Your task to perform on an android device: turn off priority inbox in the gmail app Image 0: 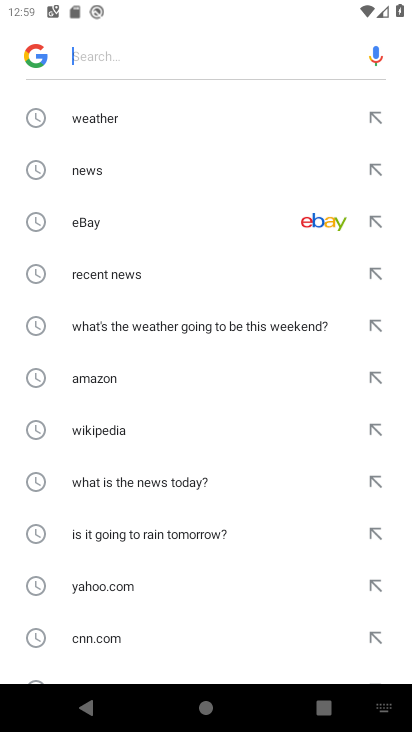
Step 0: press home button
Your task to perform on an android device: turn off priority inbox in the gmail app Image 1: 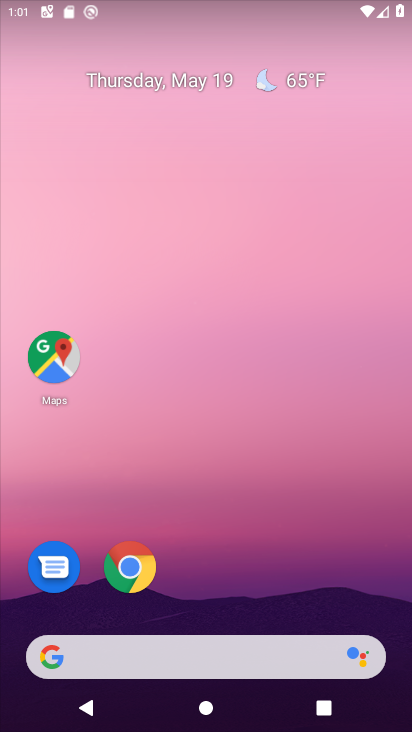
Step 1: drag from (223, 580) to (234, 189)
Your task to perform on an android device: turn off priority inbox in the gmail app Image 2: 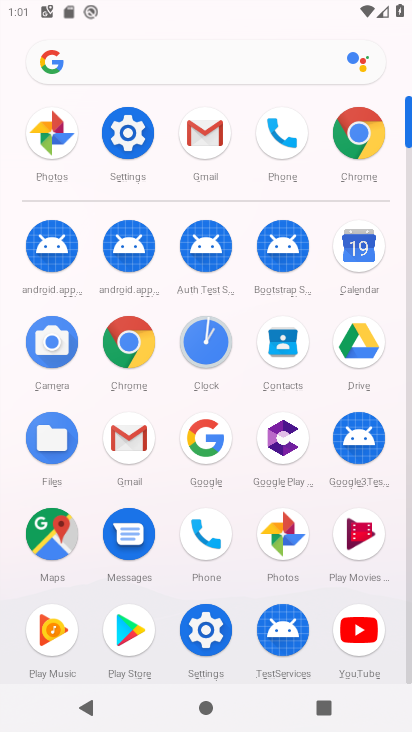
Step 2: click (209, 161)
Your task to perform on an android device: turn off priority inbox in the gmail app Image 3: 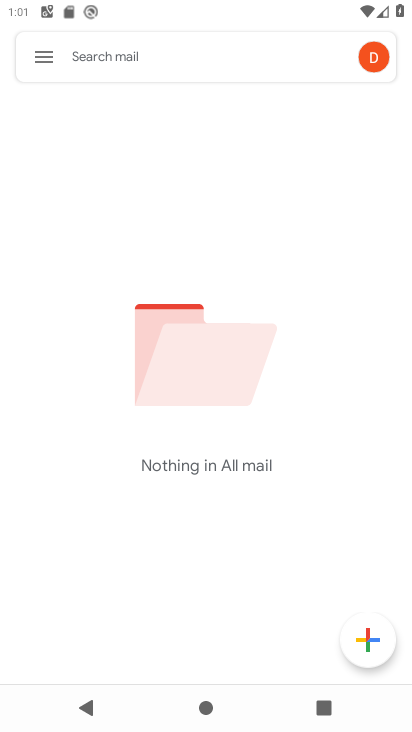
Step 3: click (52, 63)
Your task to perform on an android device: turn off priority inbox in the gmail app Image 4: 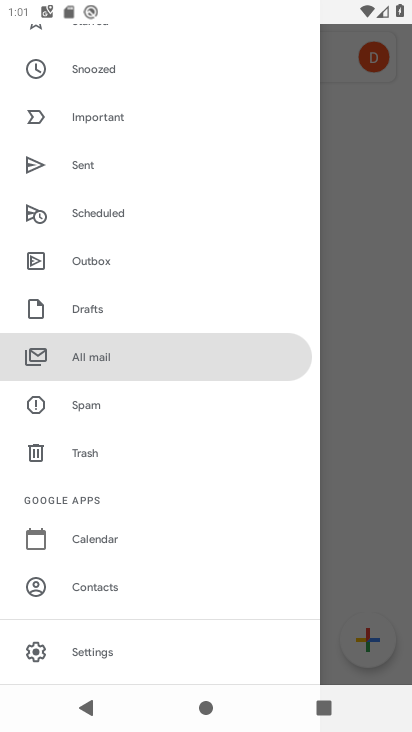
Step 4: click (71, 645)
Your task to perform on an android device: turn off priority inbox in the gmail app Image 5: 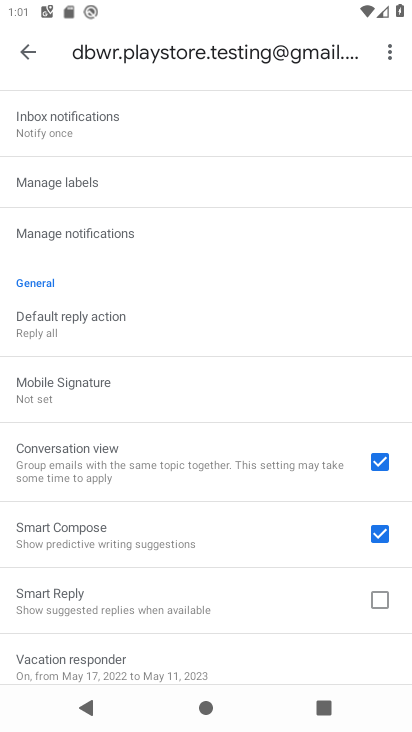
Step 5: drag from (145, 640) to (122, 221)
Your task to perform on an android device: turn off priority inbox in the gmail app Image 6: 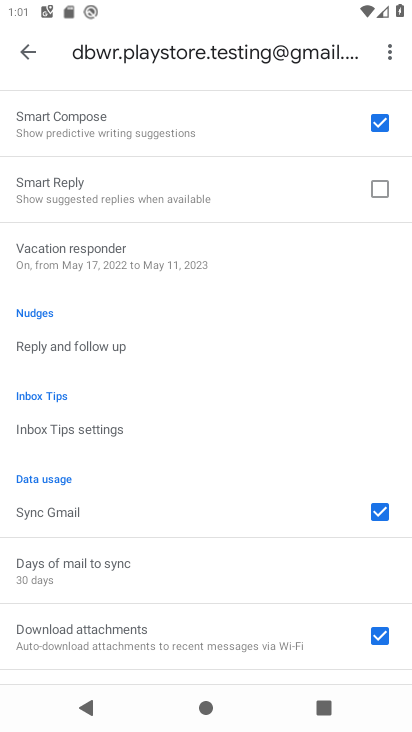
Step 6: drag from (136, 567) to (95, 174)
Your task to perform on an android device: turn off priority inbox in the gmail app Image 7: 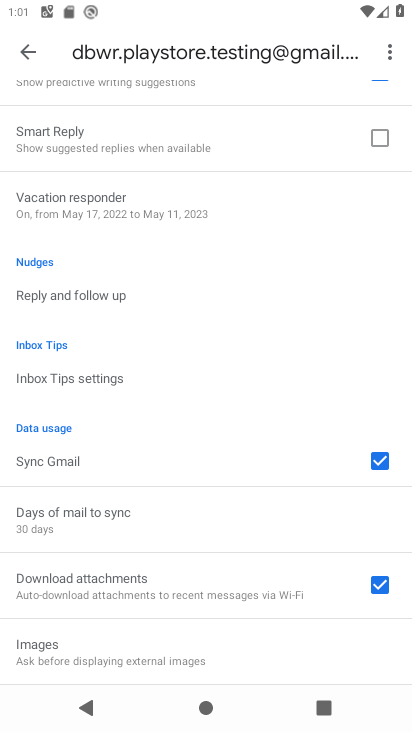
Step 7: click (63, 377)
Your task to perform on an android device: turn off priority inbox in the gmail app Image 8: 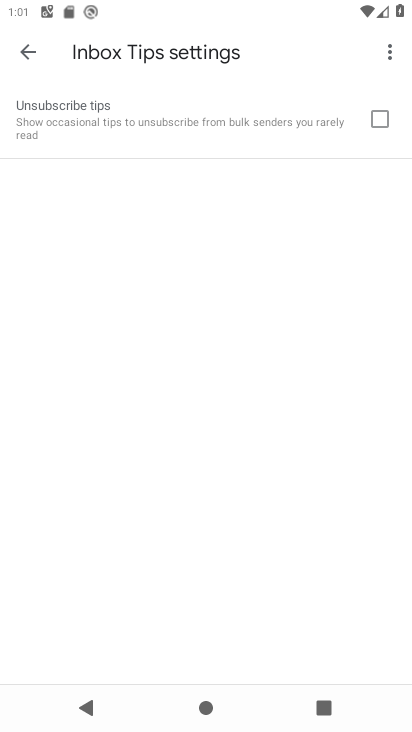
Step 8: press back button
Your task to perform on an android device: turn off priority inbox in the gmail app Image 9: 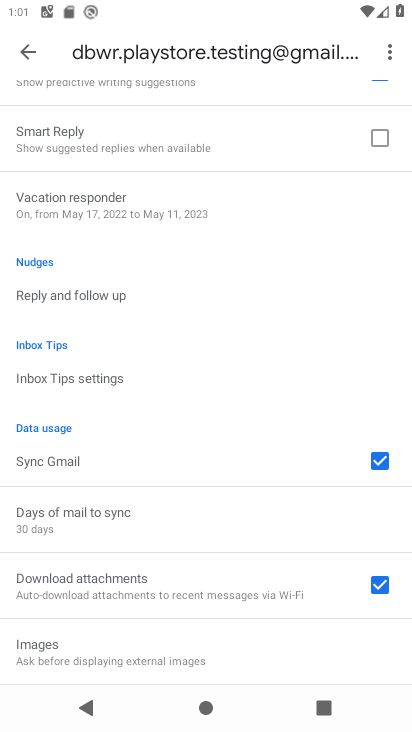
Step 9: drag from (178, 240) to (179, 448)
Your task to perform on an android device: turn off priority inbox in the gmail app Image 10: 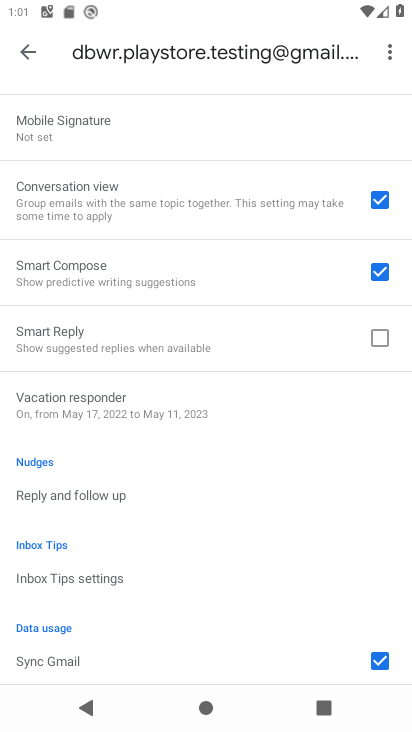
Step 10: drag from (116, 167) to (130, 563)
Your task to perform on an android device: turn off priority inbox in the gmail app Image 11: 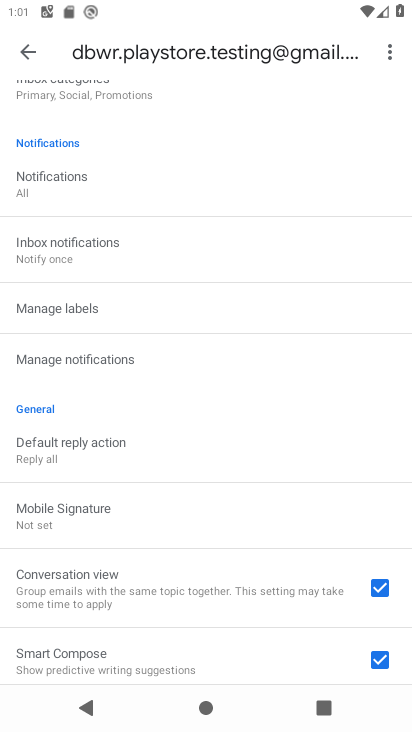
Step 11: drag from (147, 179) to (152, 344)
Your task to perform on an android device: turn off priority inbox in the gmail app Image 12: 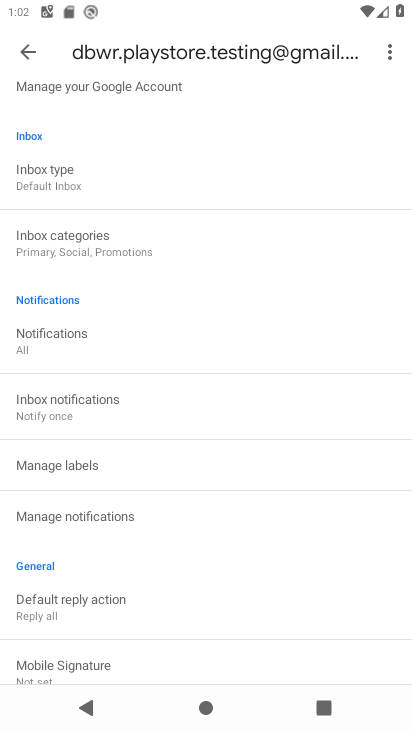
Step 12: click (98, 175)
Your task to perform on an android device: turn off priority inbox in the gmail app Image 13: 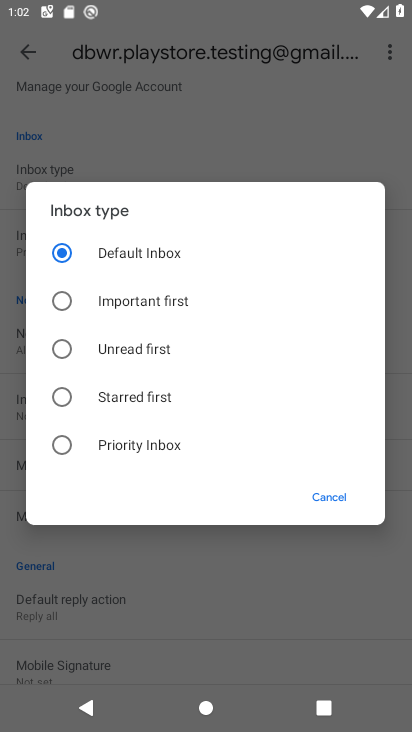
Step 13: click (69, 440)
Your task to perform on an android device: turn off priority inbox in the gmail app Image 14: 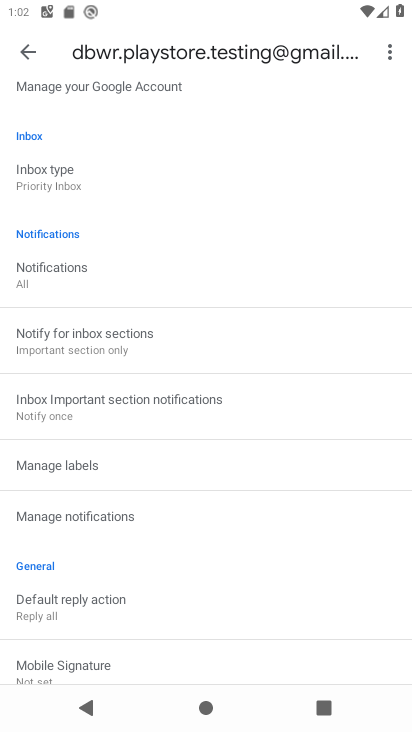
Step 14: click (43, 170)
Your task to perform on an android device: turn off priority inbox in the gmail app Image 15: 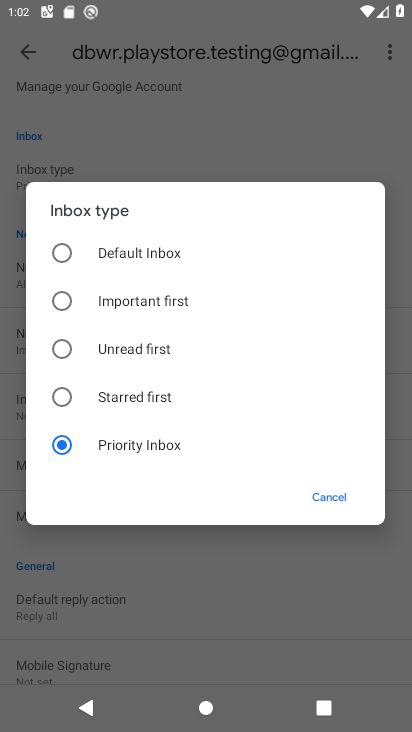
Step 15: click (96, 254)
Your task to perform on an android device: turn off priority inbox in the gmail app Image 16: 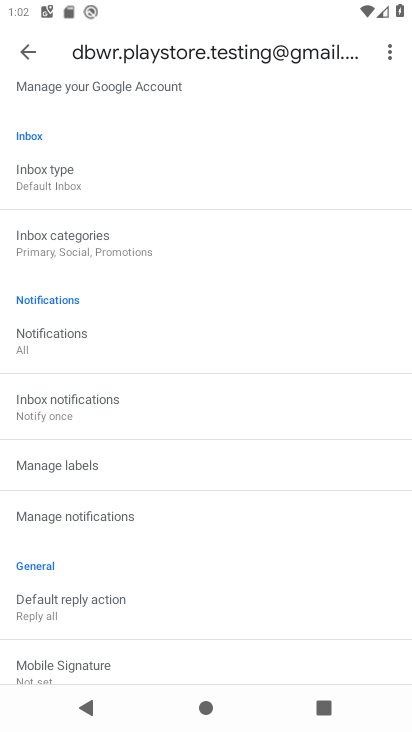
Step 16: task complete